Your task to perform on an android device: Go to location settings Image 0: 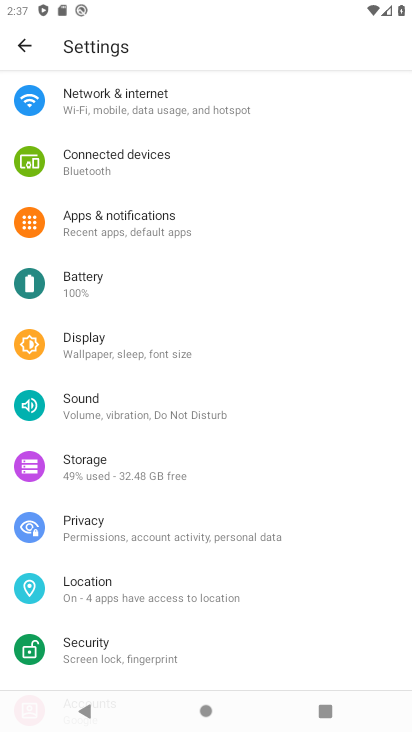
Step 0: press back button
Your task to perform on an android device: Go to location settings Image 1: 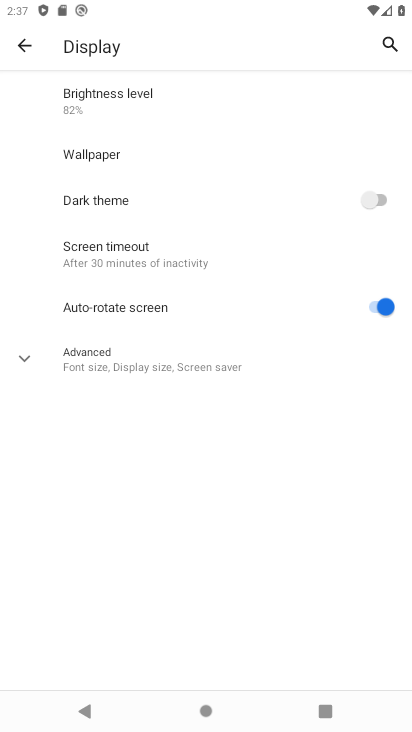
Step 1: click (19, 46)
Your task to perform on an android device: Go to location settings Image 2: 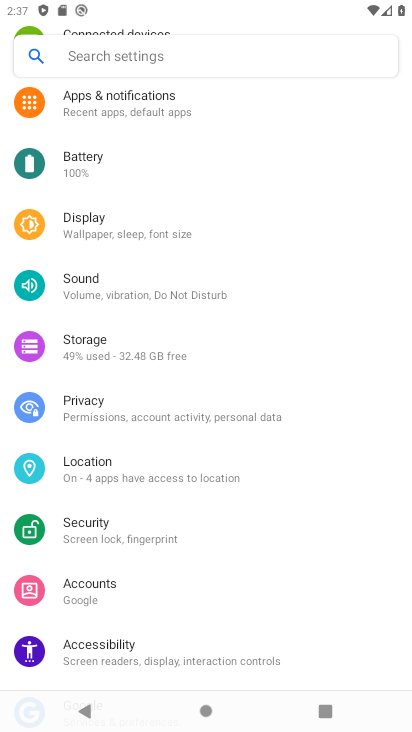
Step 2: click (80, 475)
Your task to perform on an android device: Go to location settings Image 3: 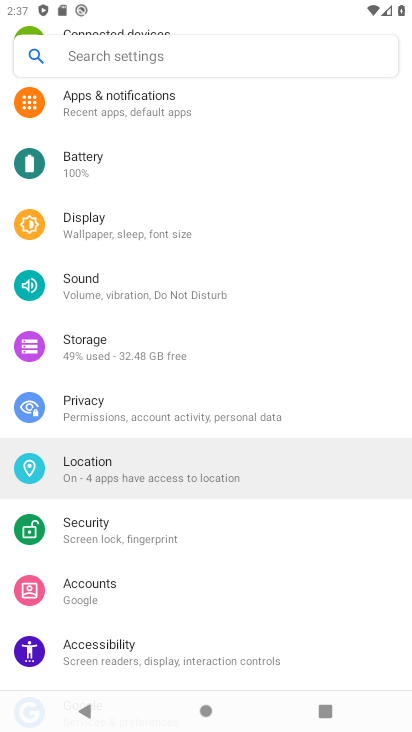
Step 3: click (80, 465)
Your task to perform on an android device: Go to location settings Image 4: 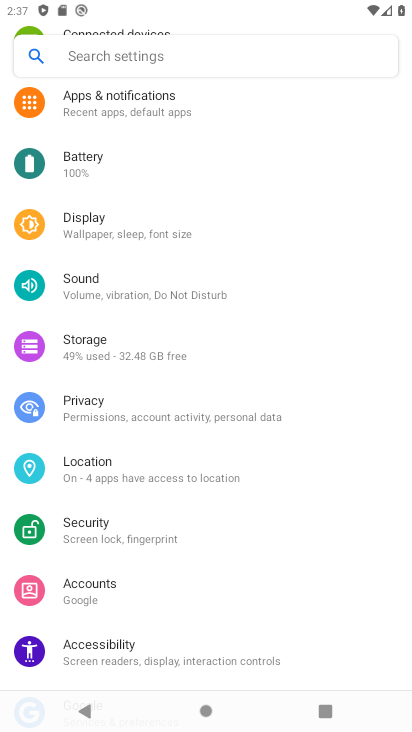
Step 4: click (80, 465)
Your task to perform on an android device: Go to location settings Image 5: 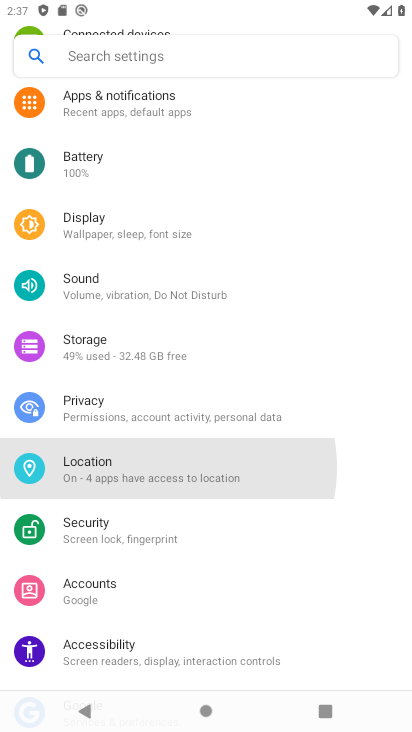
Step 5: click (80, 465)
Your task to perform on an android device: Go to location settings Image 6: 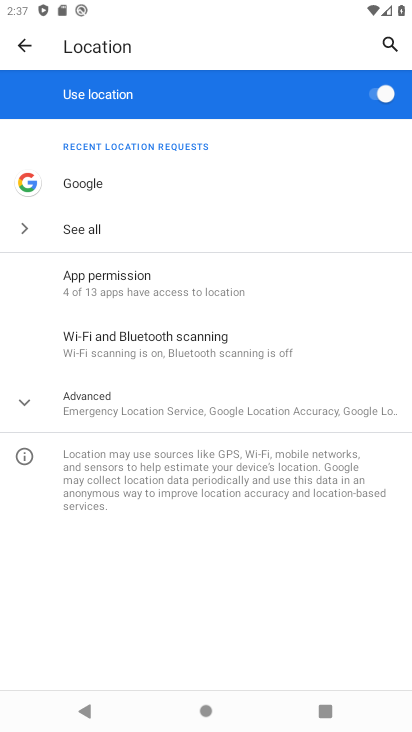
Step 6: click (112, 167)
Your task to perform on an android device: Go to location settings Image 7: 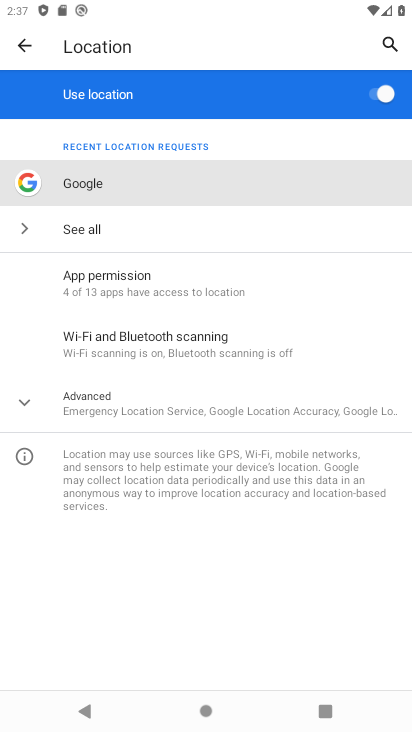
Step 7: task complete